Your task to perform on an android device: Open Reddit.com Image 0: 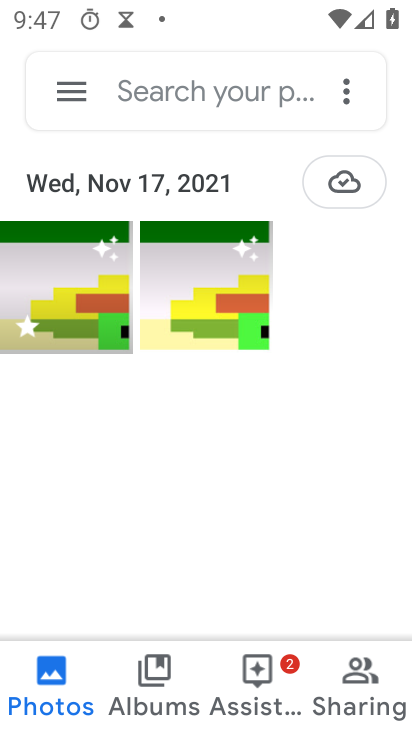
Step 0: press home button
Your task to perform on an android device: Open Reddit.com Image 1: 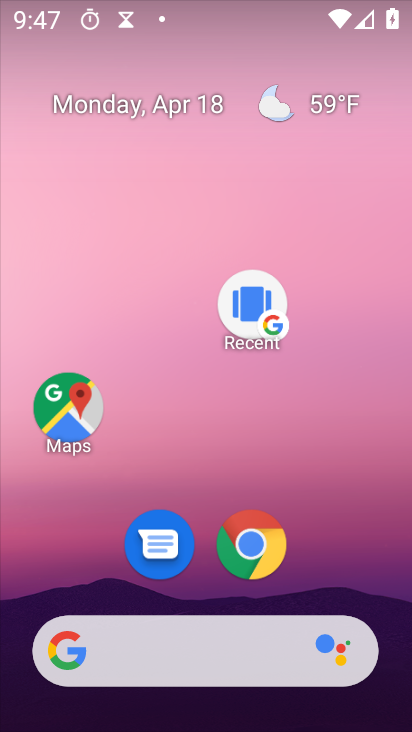
Step 1: drag from (355, 539) to (293, 96)
Your task to perform on an android device: Open Reddit.com Image 2: 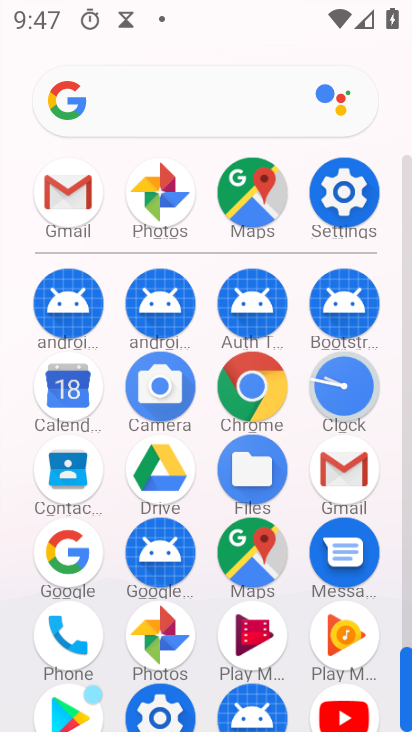
Step 2: click (258, 406)
Your task to perform on an android device: Open Reddit.com Image 3: 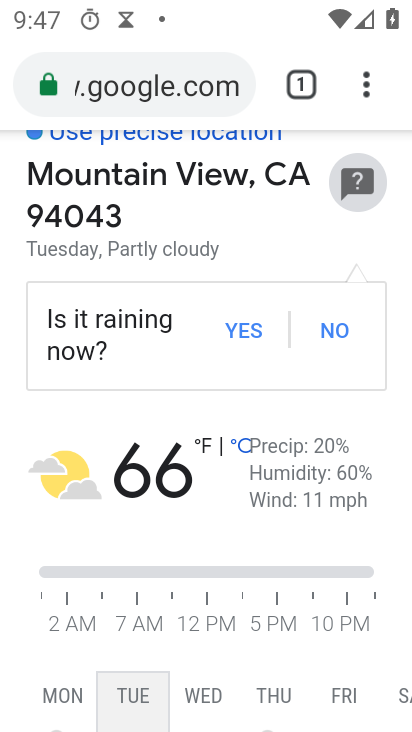
Step 3: click (183, 88)
Your task to perform on an android device: Open Reddit.com Image 4: 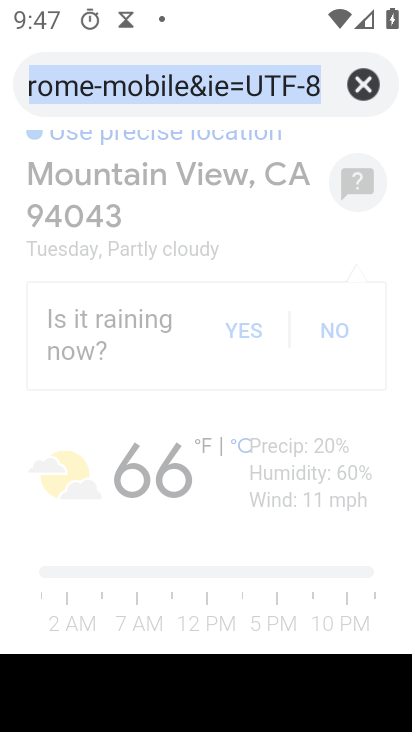
Step 4: type "reddit"
Your task to perform on an android device: Open Reddit.com Image 5: 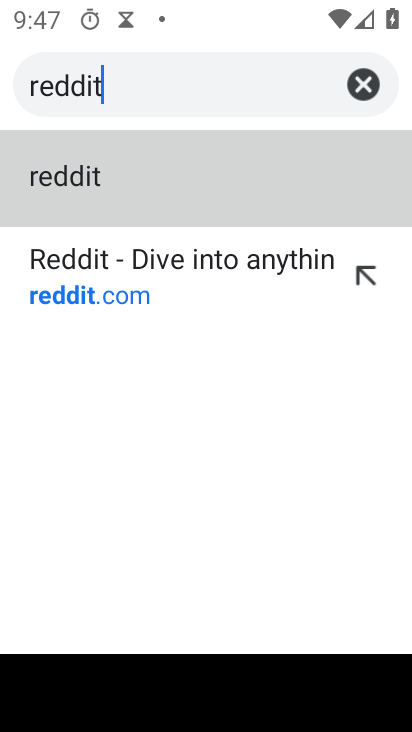
Step 5: click (188, 296)
Your task to perform on an android device: Open Reddit.com Image 6: 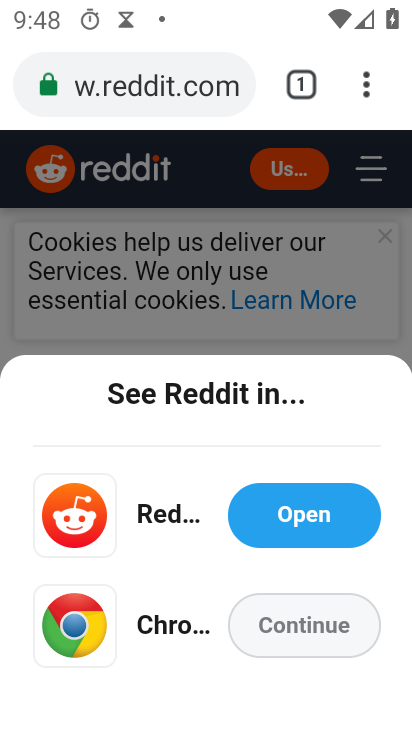
Step 6: click (345, 616)
Your task to perform on an android device: Open Reddit.com Image 7: 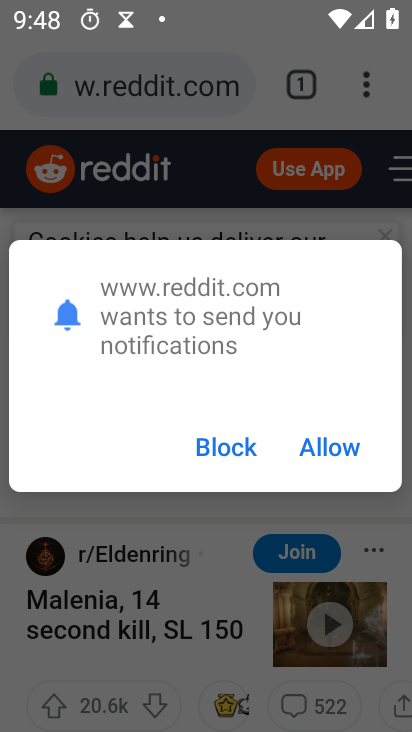
Step 7: click (237, 451)
Your task to perform on an android device: Open Reddit.com Image 8: 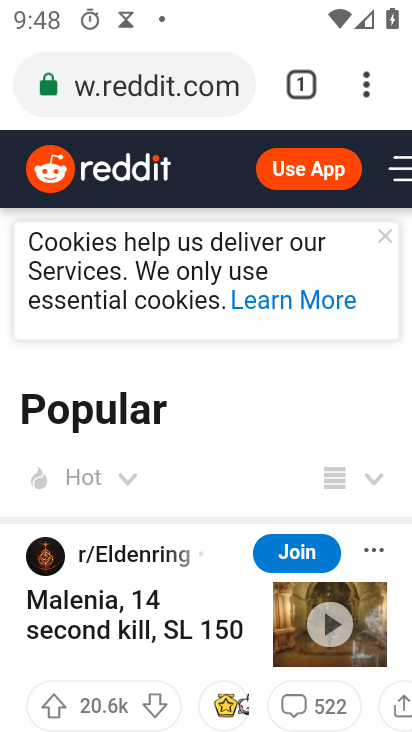
Step 8: task complete